Your task to perform on an android device: check battery use Image 0: 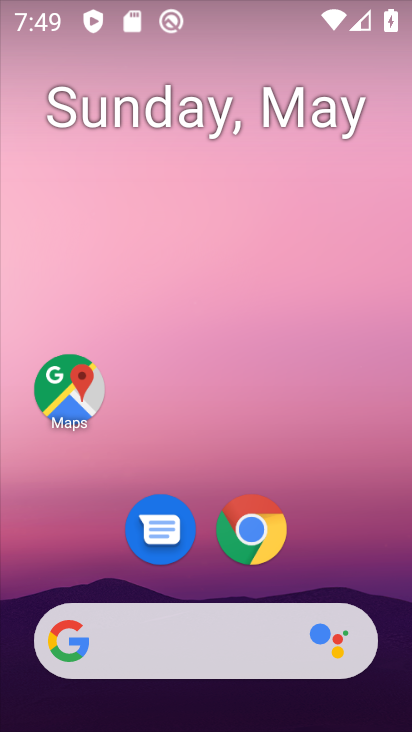
Step 0: drag from (319, 548) to (198, 2)
Your task to perform on an android device: check battery use Image 1: 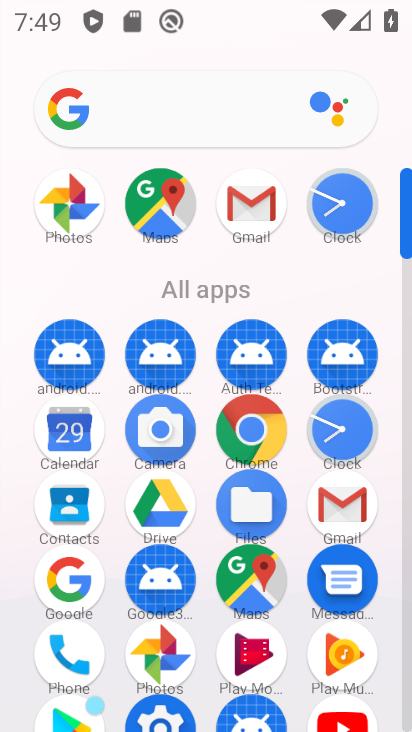
Step 1: click (172, 711)
Your task to perform on an android device: check battery use Image 2: 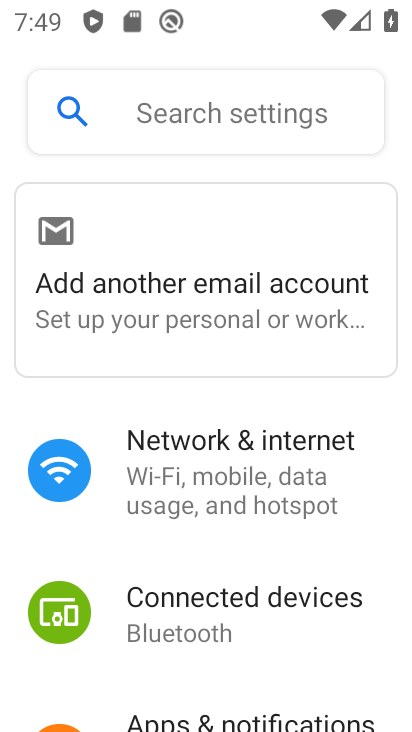
Step 2: drag from (225, 644) to (238, 327)
Your task to perform on an android device: check battery use Image 3: 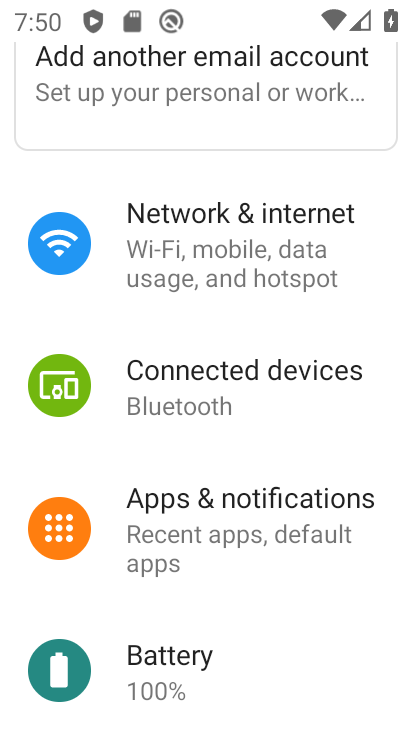
Step 3: click (163, 654)
Your task to perform on an android device: check battery use Image 4: 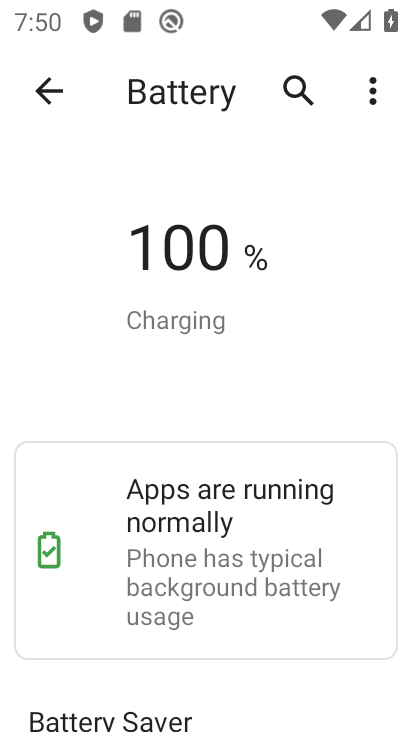
Step 4: task complete